Your task to perform on an android device: check battery use Image 0: 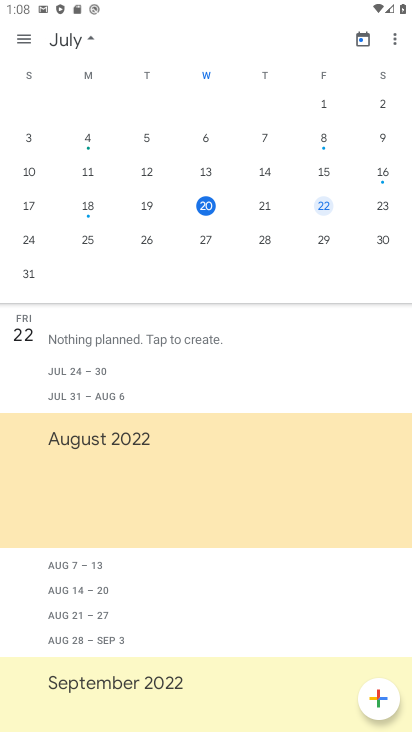
Step 0: press home button
Your task to perform on an android device: check battery use Image 1: 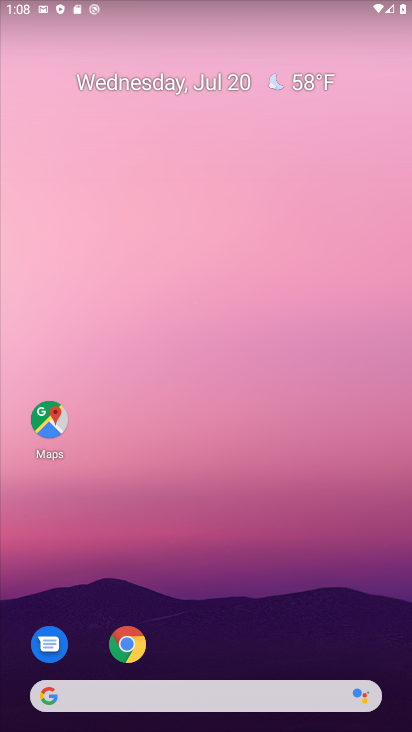
Step 1: drag from (212, 656) to (241, 180)
Your task to perform on an android device: check battery use Image 2: 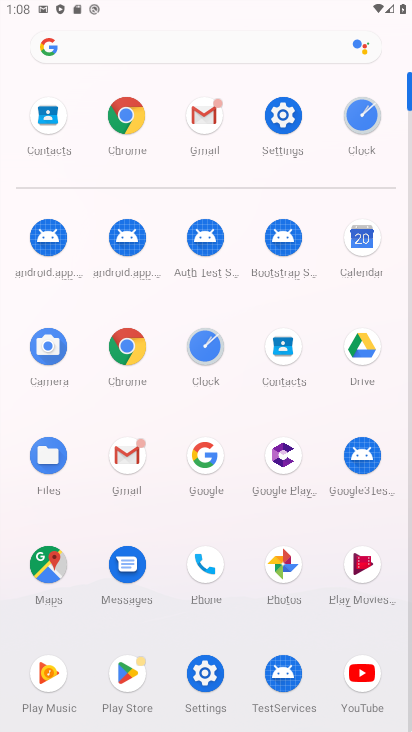
Step 2: click (281, 117)
Your task to perform on an android device: check battery use Image 3: 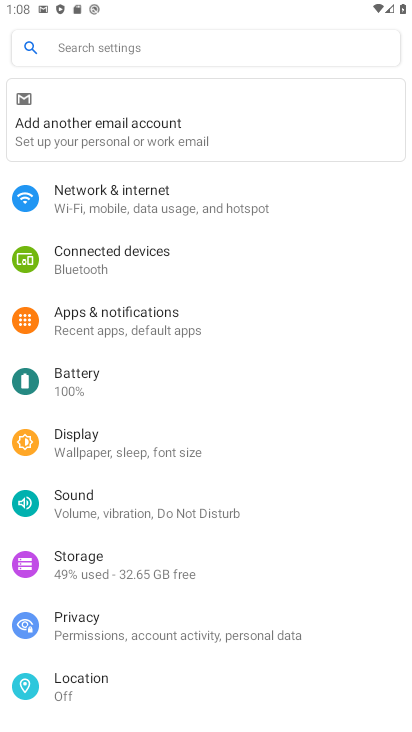
Step 3: click (92, 371)
Your task to perform on an android device: check battery use Image 4: 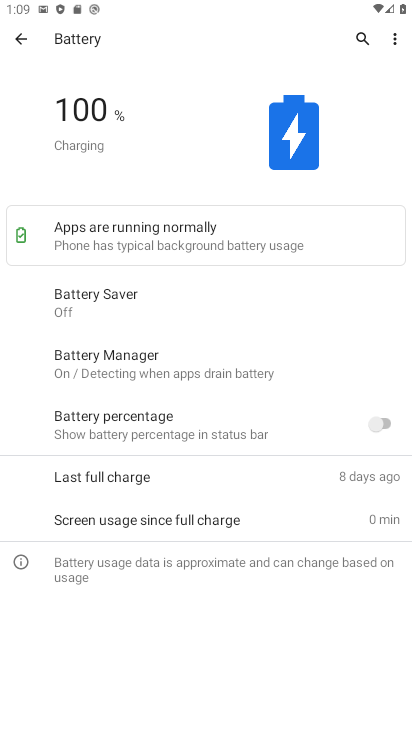
Step 4: click (394, 36)
Your task to perform on an android device: check battery use Image 5: 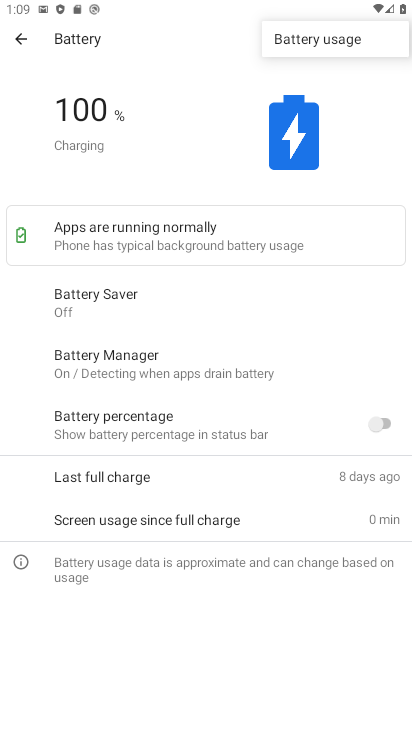
Step 5: click (321, 40)
Your task to perform on an android device: check battery use Image 6: 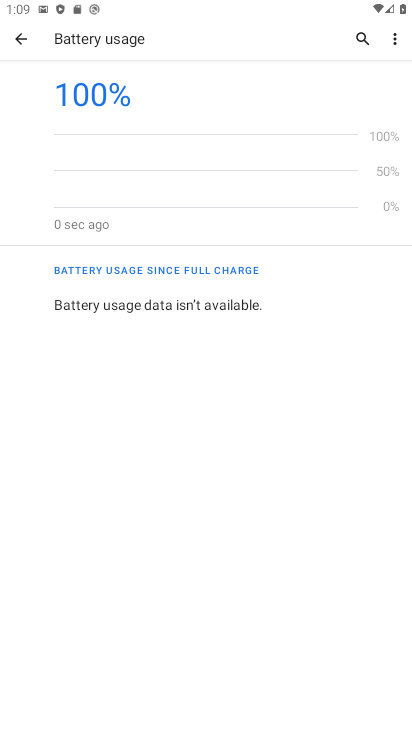
Step 6: task complete